Your task to perform on an android device: Open settings on Google Maps Image 0: 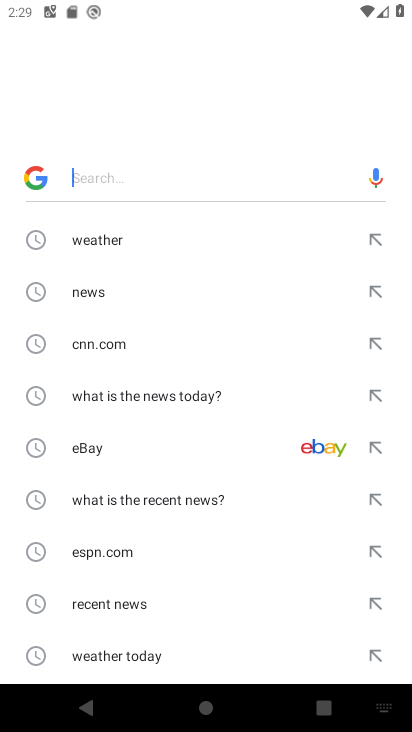
Step 0: press home button
Your task to perform on an android device: Open settings on Google Maps Image 1: 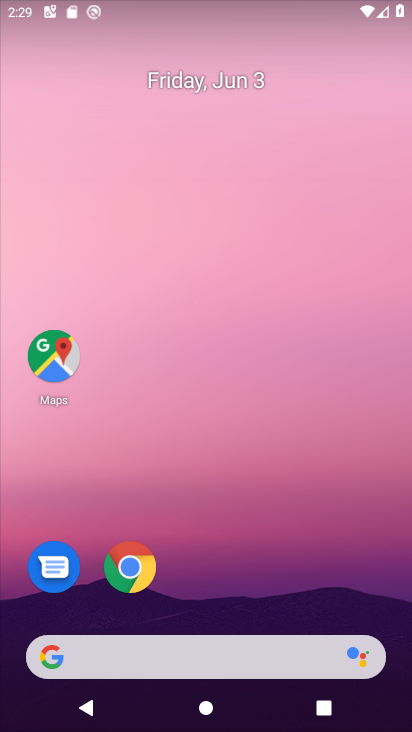
Step 1: drag from (258, 602) to (246, 218)
Your task to perform on an android device: Open settings on Google Maps Image 2: 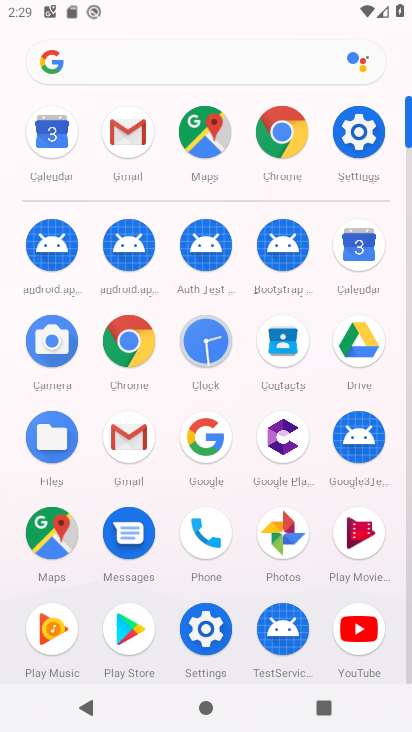
Step 2: click (187, 439)
Your task to perform on an android device: Open settings on Google Maps Image 3: 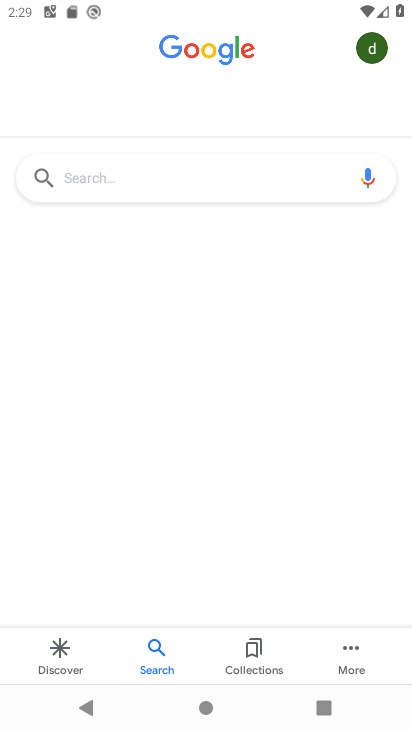
Step 3: press home button
Your task to perform on an android device: Open settings on Google Maps Image 4: 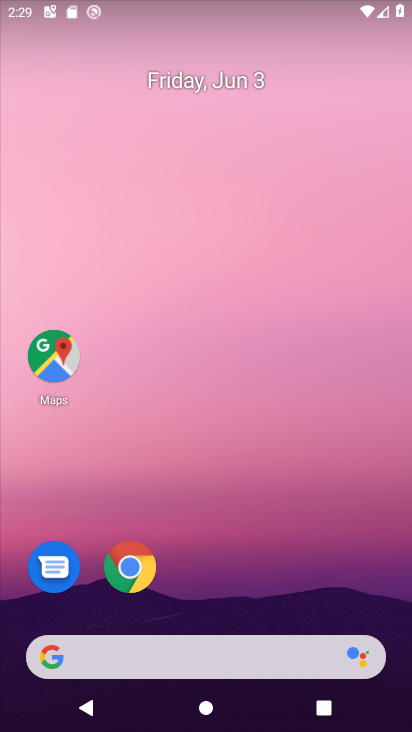
Step 4: click (47, 332)
Your task to perform on an android device: Open settings on Google Maps Image 5: 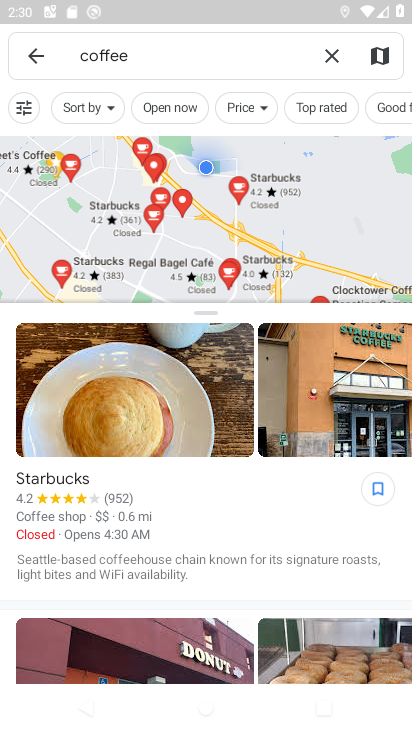
Step 5: task complete